Your task to perform on an android device: Open eBay Image 0: 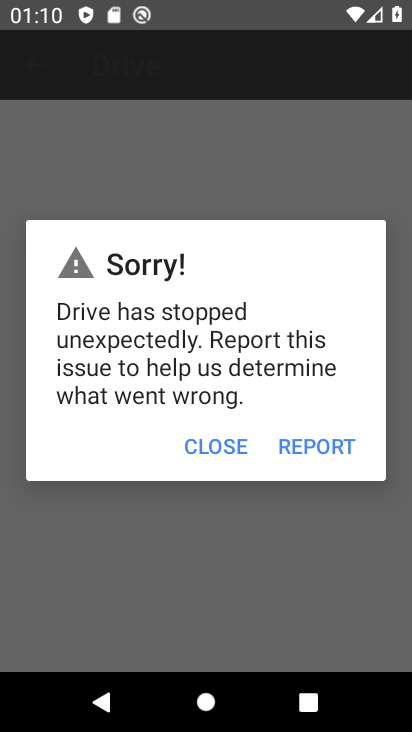
Step 0: press home button
Your task to perform on an android device: Open eBay Image 1: 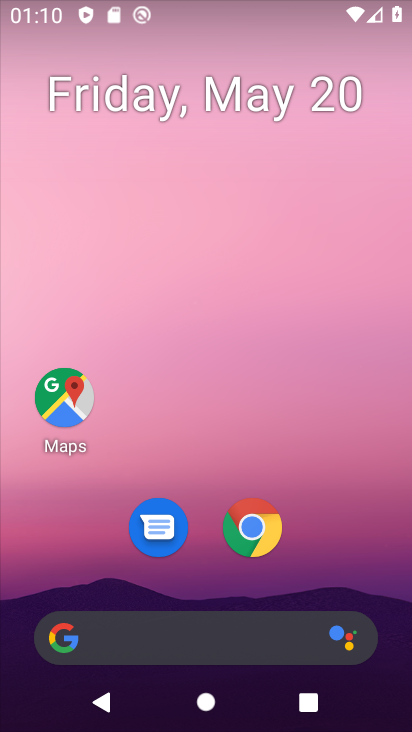
Step 1: click (252, 514)
Your task to perform on an android device: Open eBay Image 2: 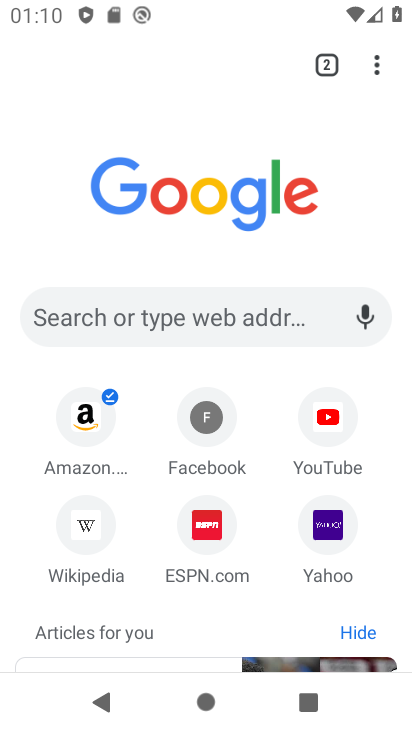
Step 2: click (172, 301)
Your task to perform on an android device: Open eBay Image 3: 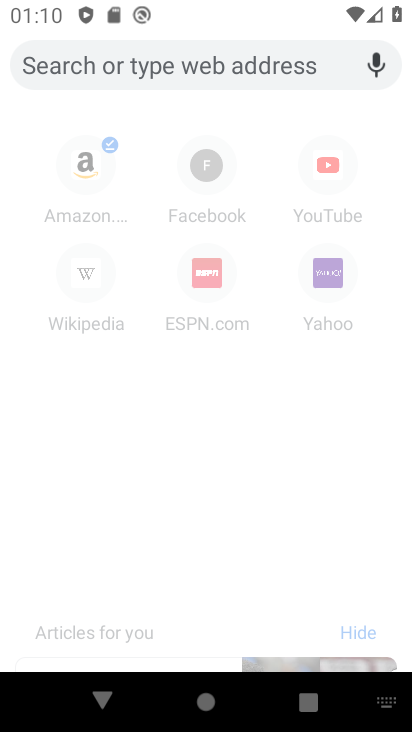
Step 3: type "ebay"
Your task to perform on an android device: Open eBay Image 4: 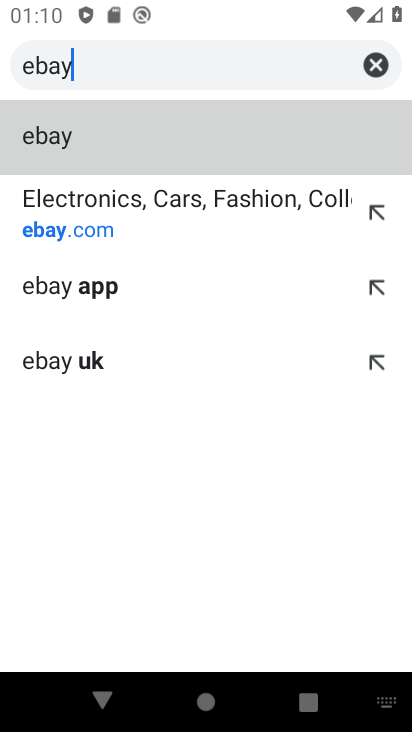
Step 4: click (107, 218)
Your task to perform on an android device: Open eBay Image 5: 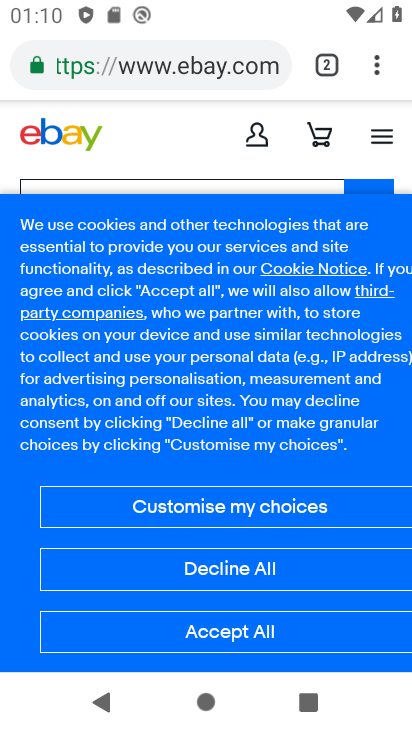
Step 5: click (256, 627)
Your task to perform on an android device: Open eBay Image 6: 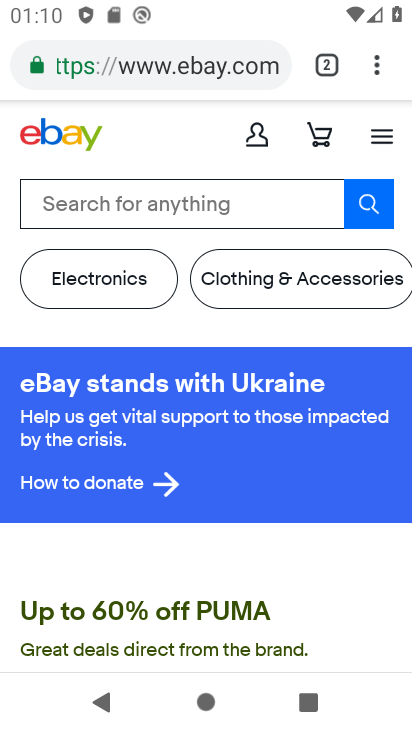
Step 6: task complete